Your task to perform on an android device: Open the calendar and show me this week's events? Image 0: 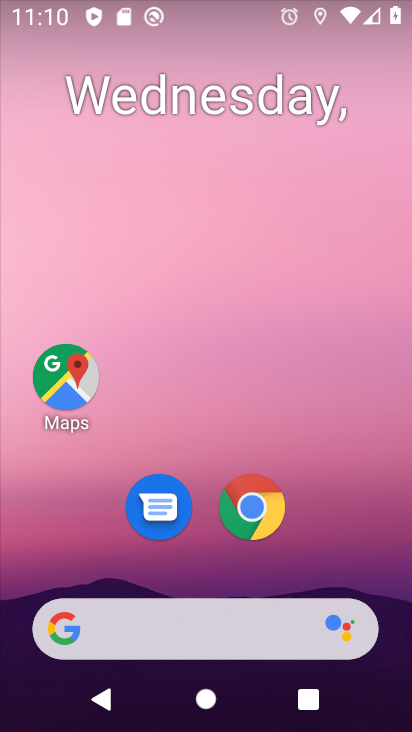
Step 0: drag from (342, 529) to (356, 46)
Your task to perform on an android device: Open the calendar and show me this week's events? Image 1: 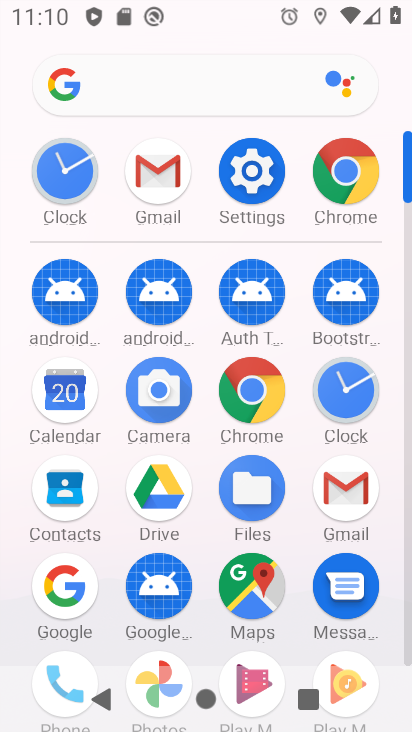
Step 1: click (66, 397)
Your task to perform on an android device: Open the calendar and show me this week's events? Image 2: 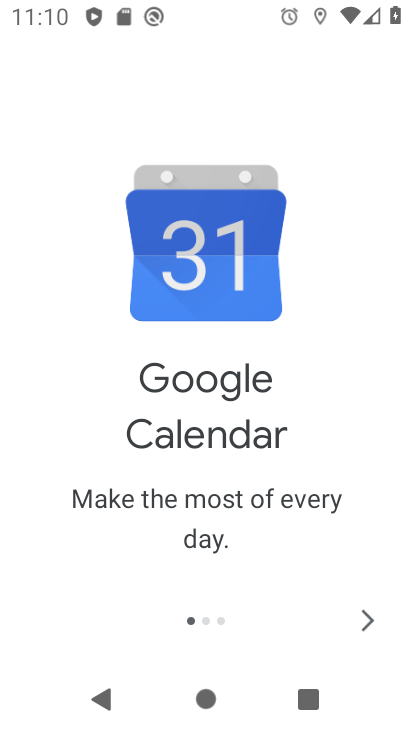
Step 2: click (375, 615)
Your task to perform on an android device: Open the calendar and show me this week's events? Image 3: 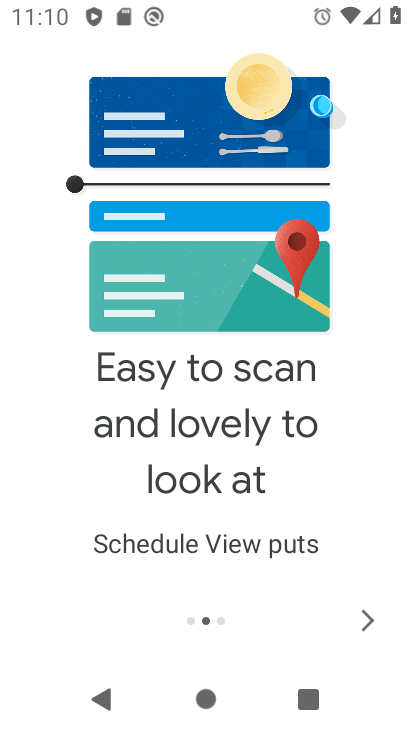
Step 3: click (375, 614)
Your task to perform on an android device: Open the calendar and show me this week's events? Image 4: 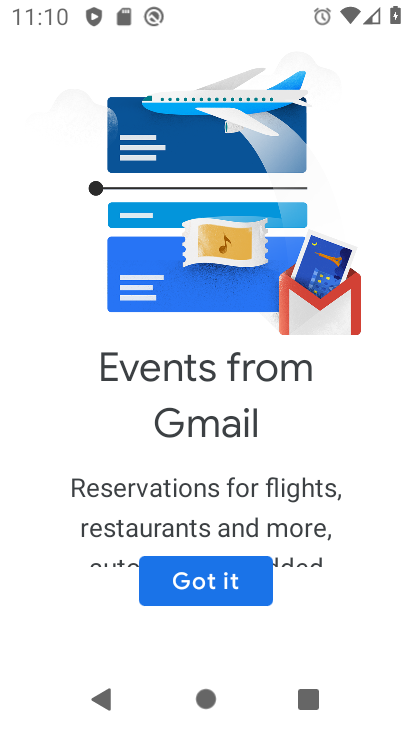
Step 4: click (251, 592)
Your task to perform on an android device: Open the calendar and show me this week's events? Image 5: 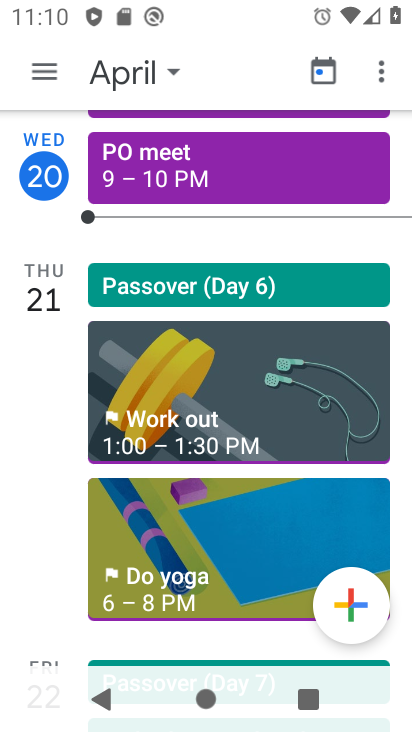
Step 5: task complete